Your task to perform on an android device: Open the stopwatch Image 0: 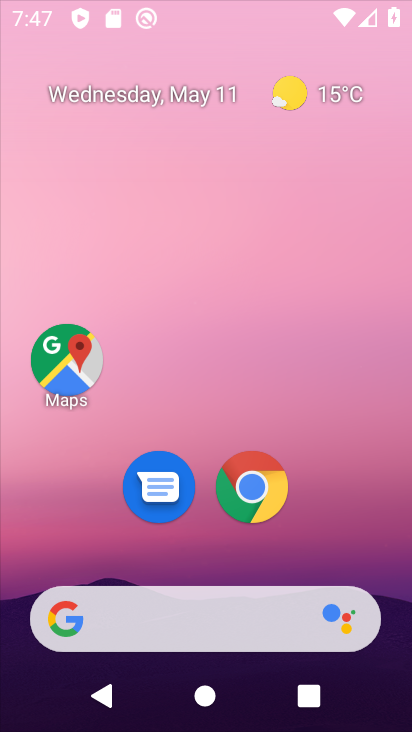
Step 0: drag from (220, 402) to (178, 231)
Your task to perform on an android device: Open the stopwatch Image 1: 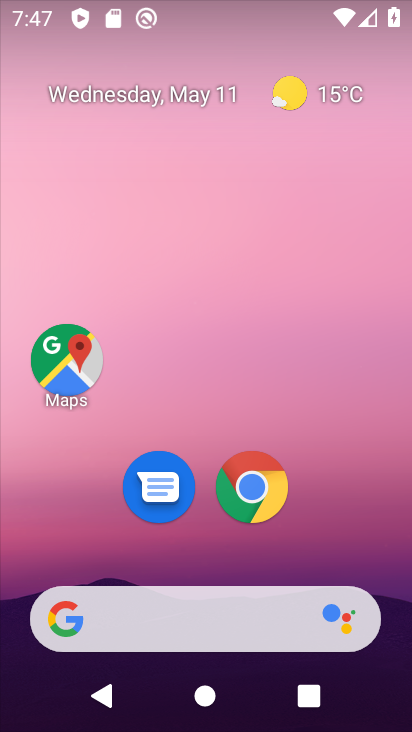
Step 1: drag from (281, 663) to (222, 298)
Your task to perform on an android device: Open the stopwatch Image 2: 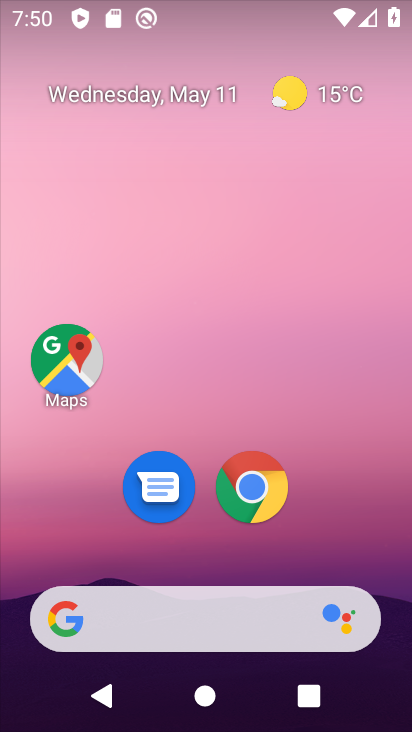
Step 2: drag from (317, 639) to (248, 262)
Your task to perform on an android device: Open the stopwatch Image 3: 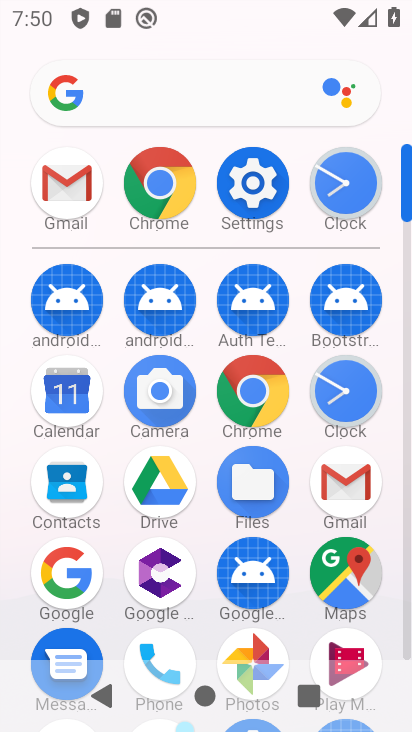
Step 3: click (369, 396)
Your task to perform on an android device: Open the stopwatch Image 4: 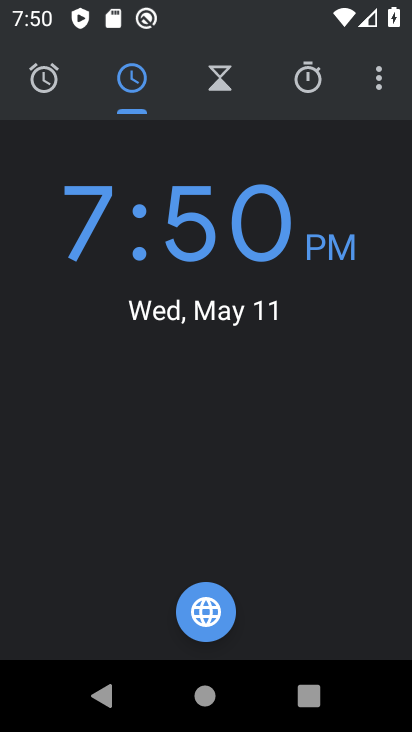
Step 4: click (298, 72)
Your task to perform on an android device: Open the stopwatch Image 5: 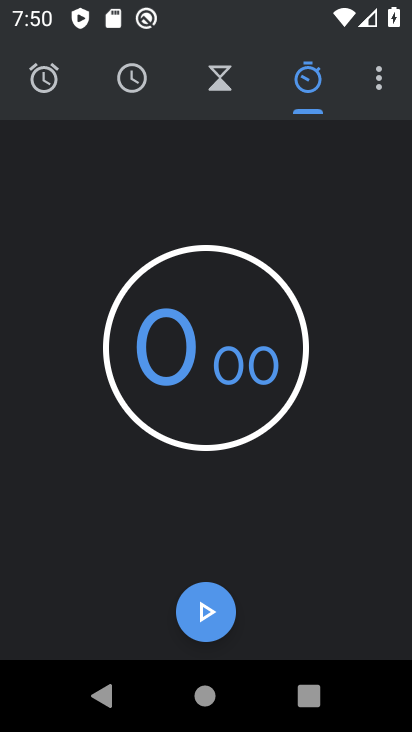
Step 5: task complete